Your task to perform on an android device: Open the Play Movies app and select the watchlist tab. Image 0: 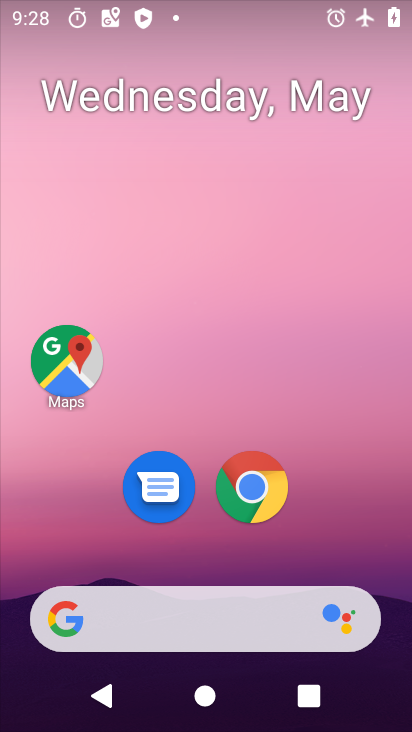
Step 0: drag from (207, 561) to (206, 245)
Your task to perform on an android device: Open the Play Movies app and select the watchlist tab. Image 1: 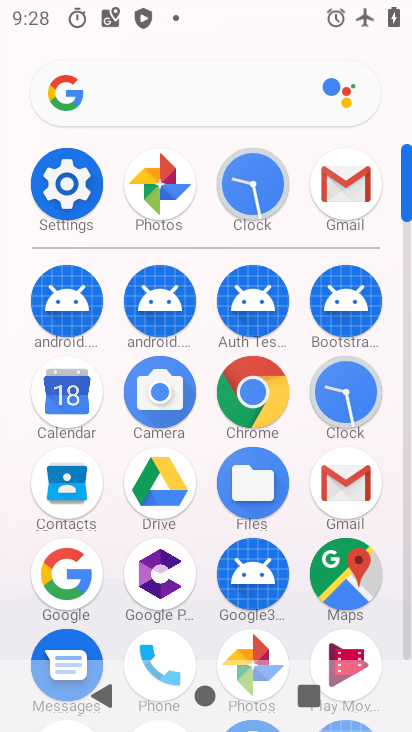
Step 1: drag from (328, 625) to (325, 422)
Your task to perform on an android device: Open the Play Movies app and select the watchlist tab. Image 2: 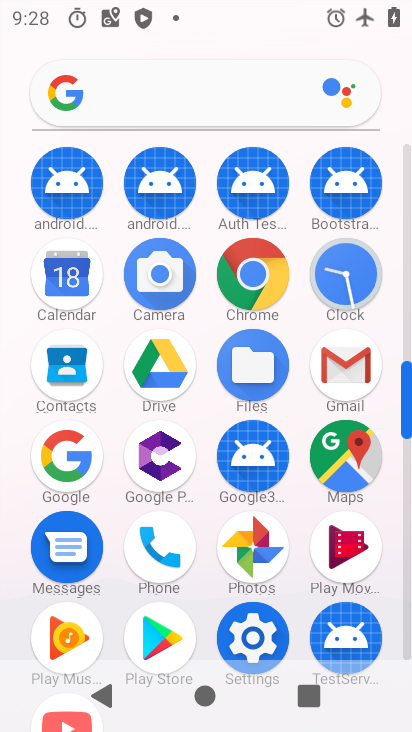
Step 2: click (339, 545)
Your task to perform on an android device: Open the Play Movies app and select the watchlist tab. Image 3: 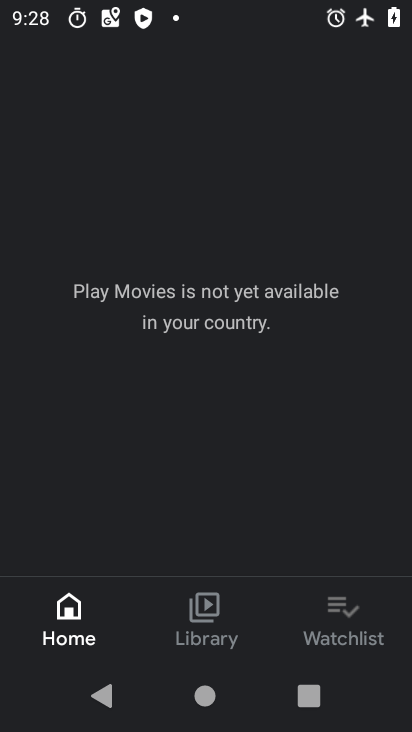
Step 3: click (332, 628)
Your task to perform on an android device: Open the Play Movies app and select the watchlist tab. Image 4: 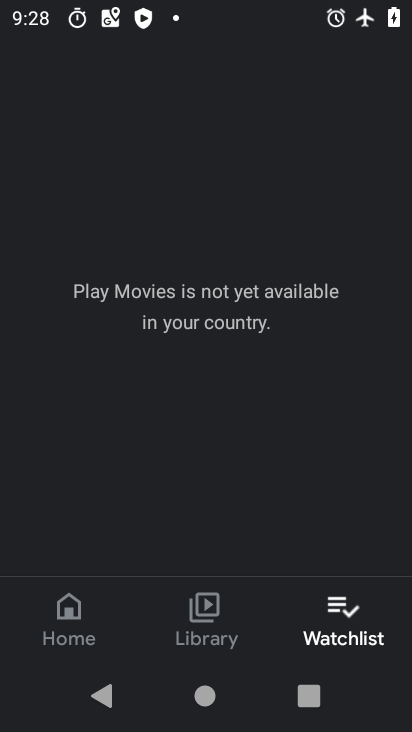
Step 4: task complete